Your task to perform on an android device: Open display settings Image 0: 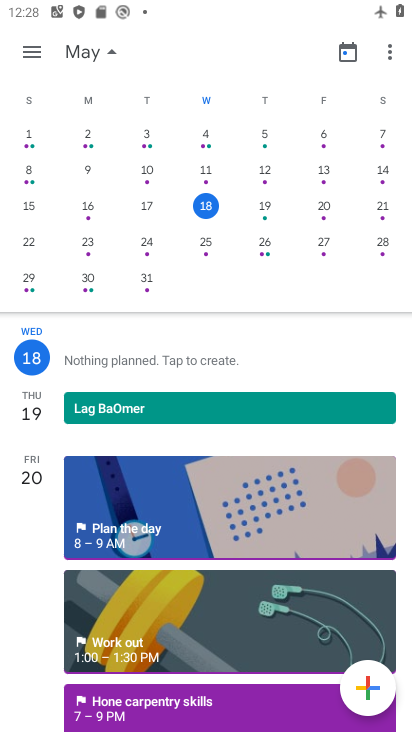
Step 0: press home button
Your task to perform on an android device: Open display settings Image 1: 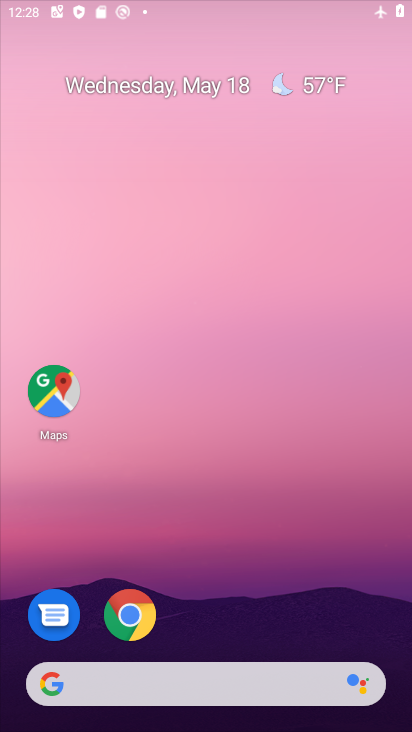
Step 1: drag from (400, 632) to (292, 43)
Your task to perform on an android device: Open display settings Image 2: 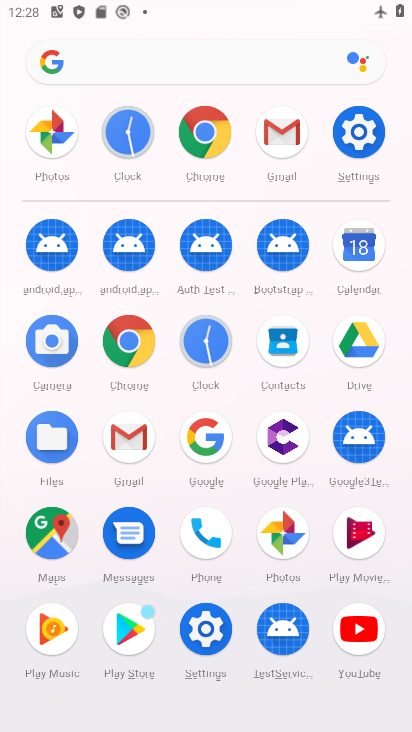
Step 2: click (206, 653)
Your task to perform on an android device: Open display settings Image 3: 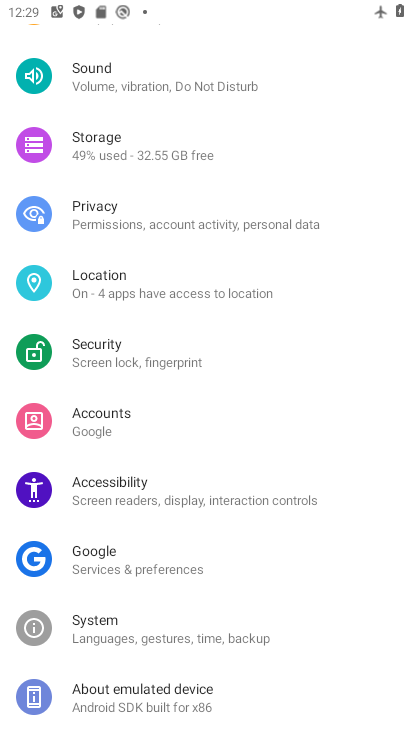
Step 3: drag from (176, 151) to (197, 640)
Your task to perform on an android device: Open display settings Image 4: 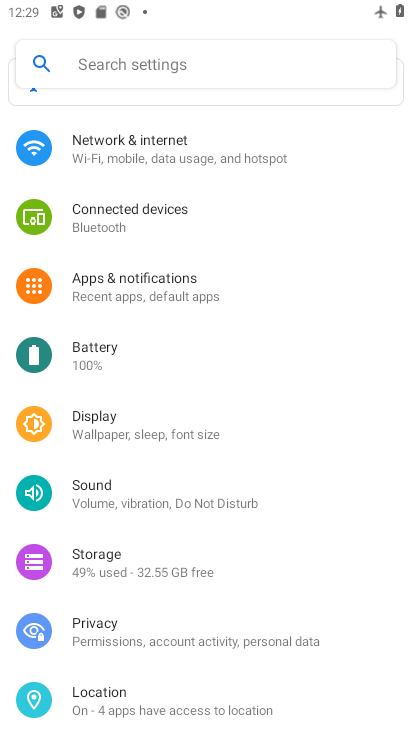
Step 4: click (111, 418)
Your task to perform on an android device: Open display settings Image 5: 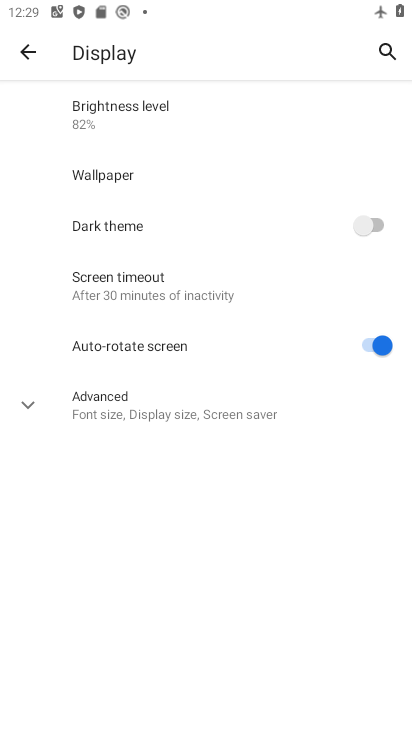
Step 5: task complete